Your task to perform on an android device: check battery use Image 0: 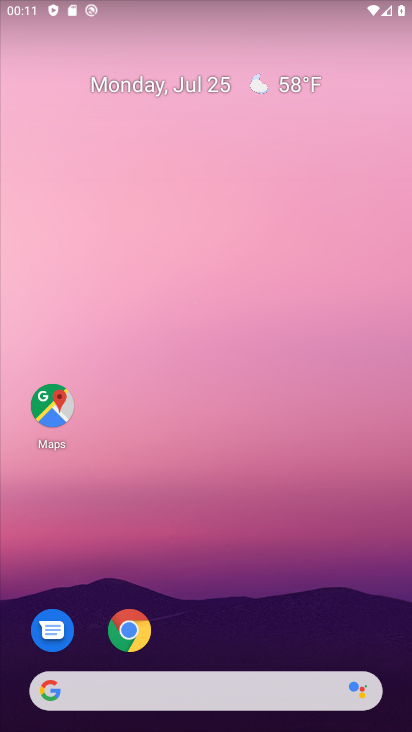
Step 0: drag from (326, 576) to (195, 140)
Your task to perform on an android device: check battery use Image 1: 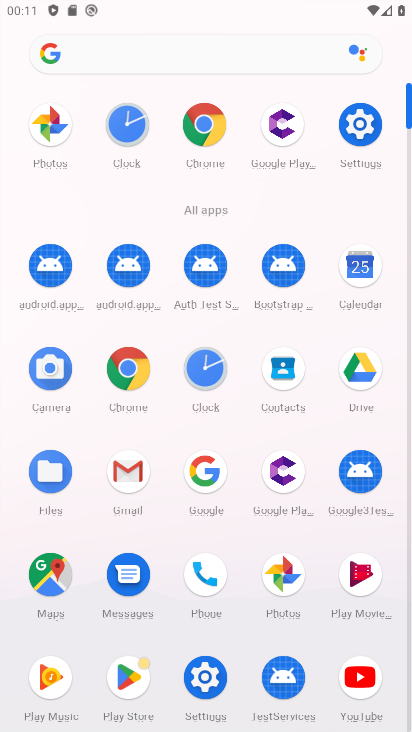
Step 1: click (351, 121)
Your task to perform on an android device: check battery use Image 2: 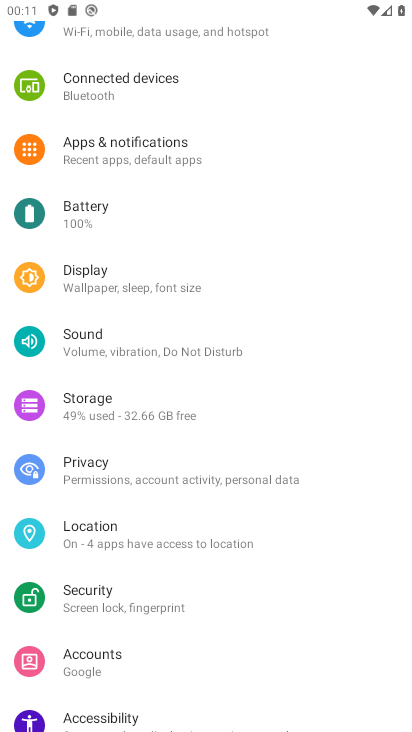
Step 2: click (101, 212)
Your task to perform on an android device: check battery use Image 3: 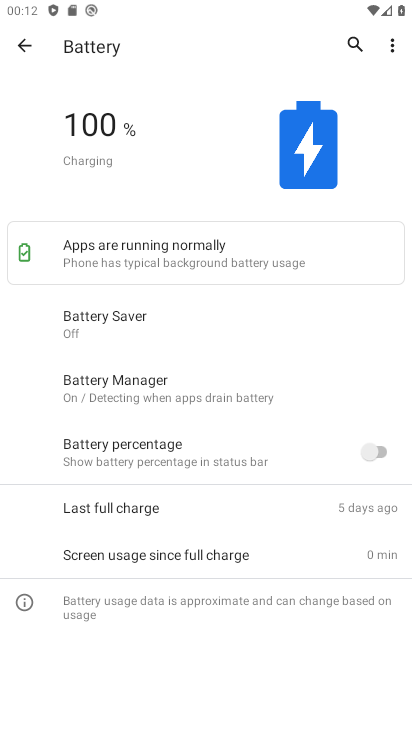
Step 3: task complete